Your task to perform on an android device: turn off location Image 0: 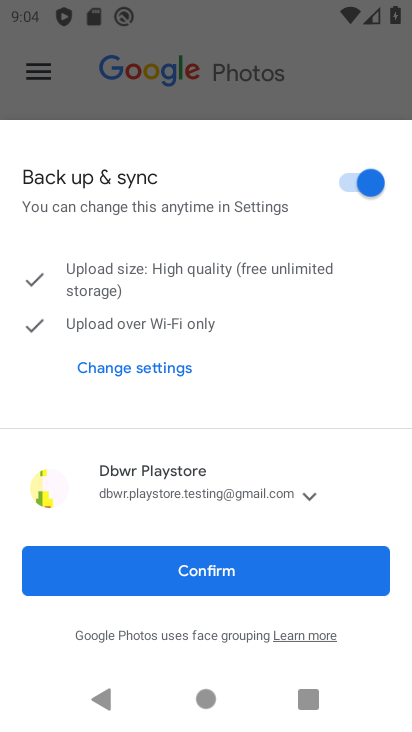
Step 0: press home button
Your task to perform on an android device: turn off location Image 1: 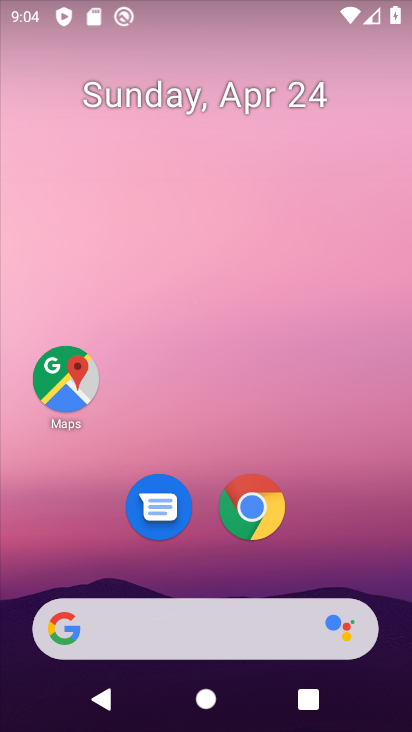
Step 1: drag from (371, 456) to (398, 3)
Your task to perform on an android device: turn off location Image 2: 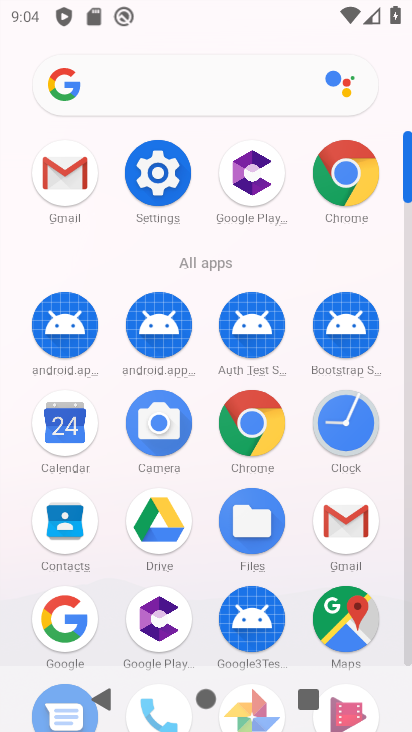
Step 2: click (140, 157)
Your task to perform on an android device: turn off location Image 3: 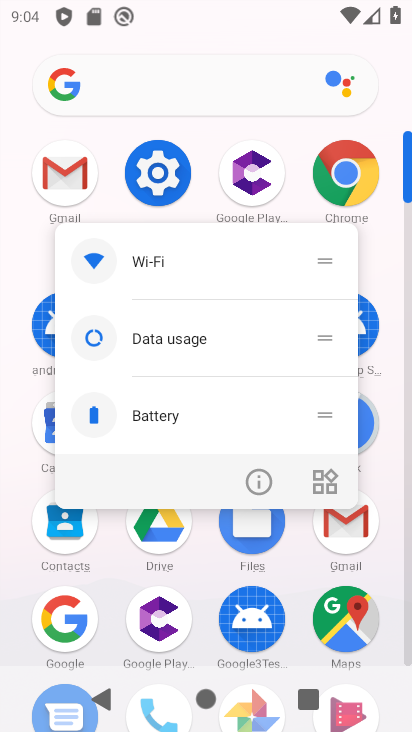
Step 3: click (140, 157)
Your task to perform on an android device: turn off location Image 4: 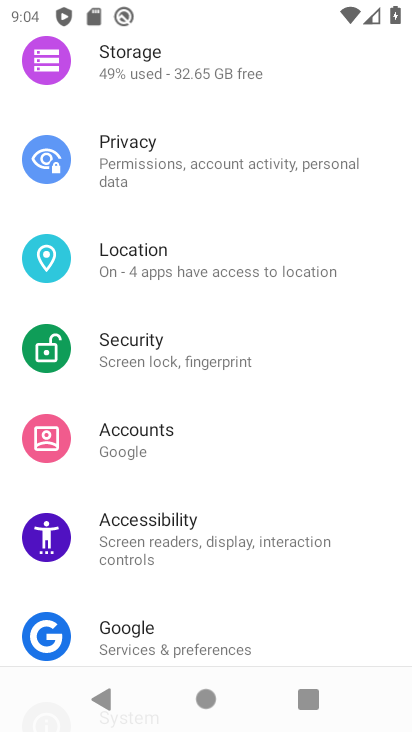
Step 4: click (189, 273)
Your task to perform on an android device: turn off location Image 5: 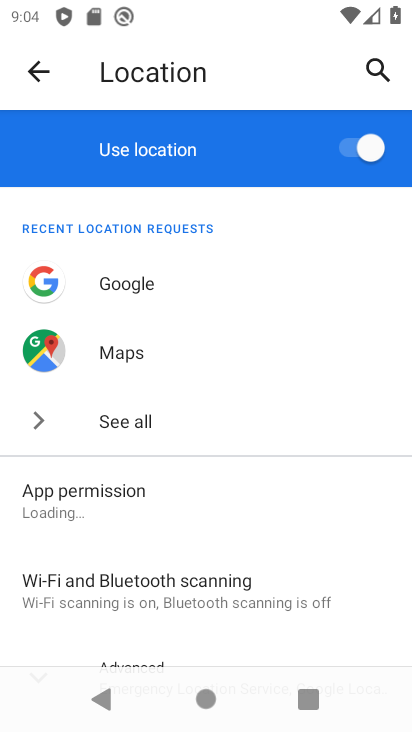
Step 5: click (361, 158)
Your task to perform on an android device: turn off location Image 6: 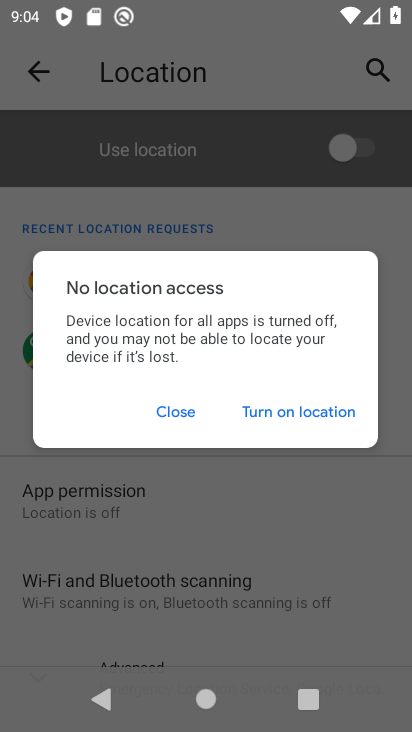
Step 6: click (180, 422)
Your task to perform on an android device: turn off location Image 7: 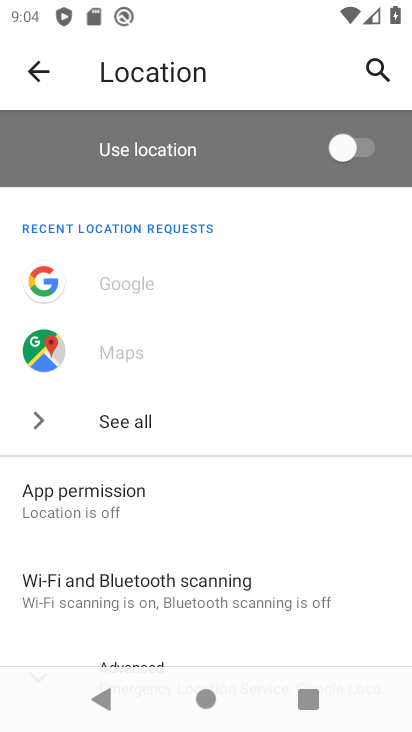
Step 7: task complete